Your task to perform on an android device: turn off location history Image 0: 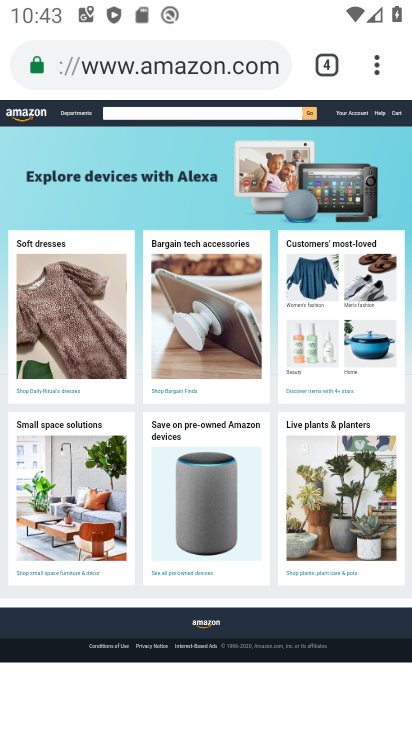
Step 0: press home button
Your task to perform on an android device: turn off location history Image 1: 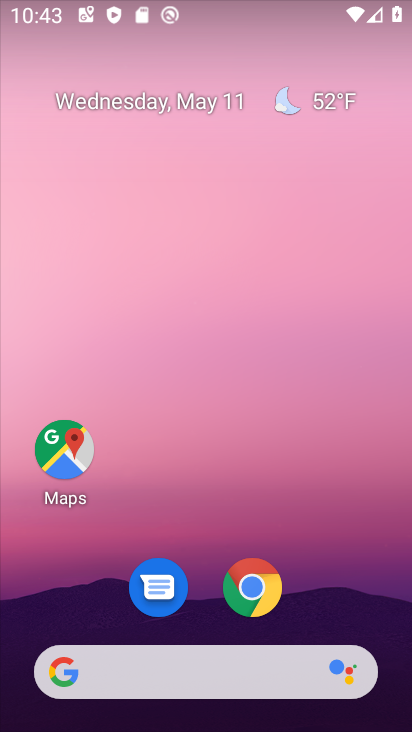
Step 1: drag from (286, 663) to (260, 315)
Your task to perform on an android device: turn off location history Image 2: 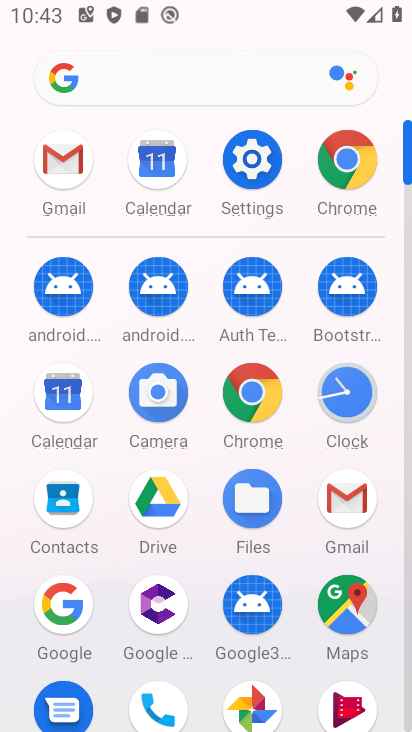
Step 2: click (271, 155)
Your task to perform on an android device: turn off location history Image 3: 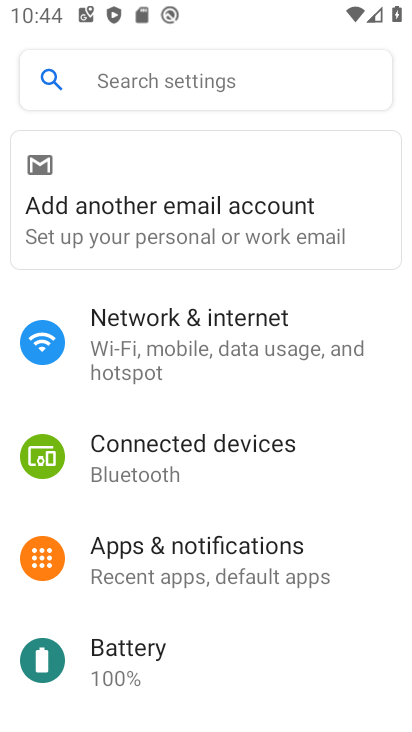
Step 3: click (192, 83)
Your task to perform on an android device: turn off location history Image 4: 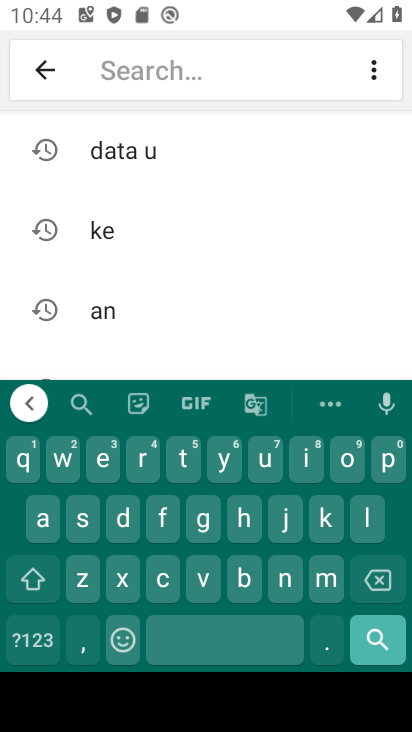
Step 4: click (358, 529)
Your task to perform on an android device: turn off location history Image 5: 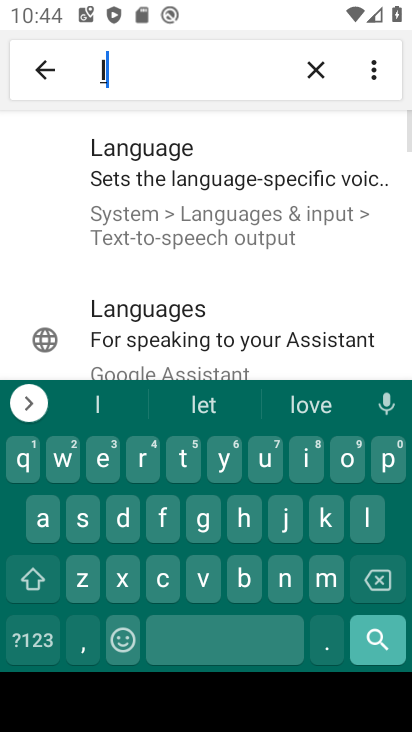
Step 5: click (344, 467)
Your task to perform on an android device: turn off location history Image 6: 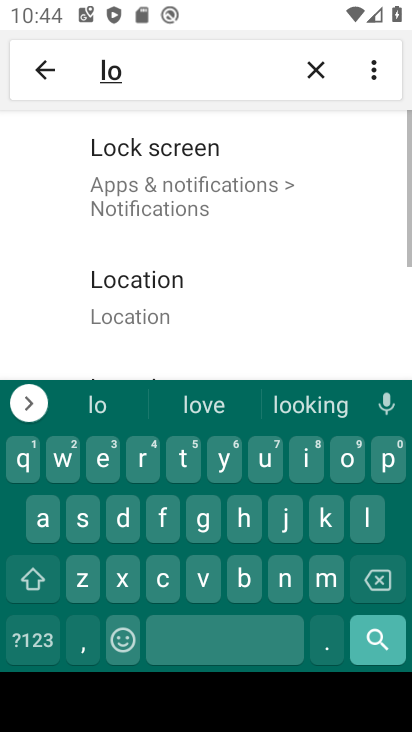
Step 6: click (175, 295)
Your task to perform on an android device: turn off location history Image 7: 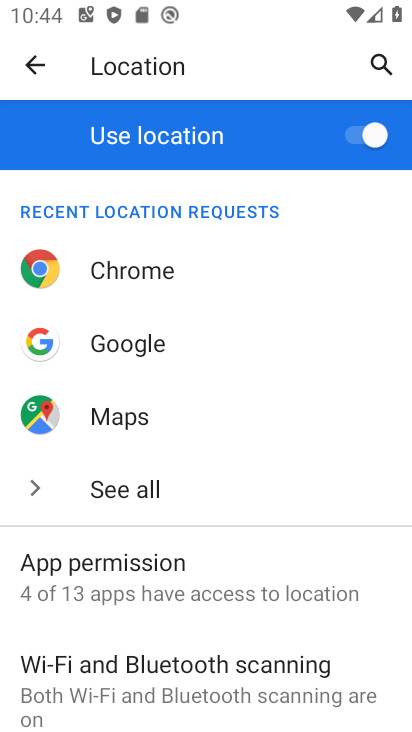
Step 7: drag from (163, 642) to (165, 434)
Your task to perform on an android device: turn off location history Image 8: 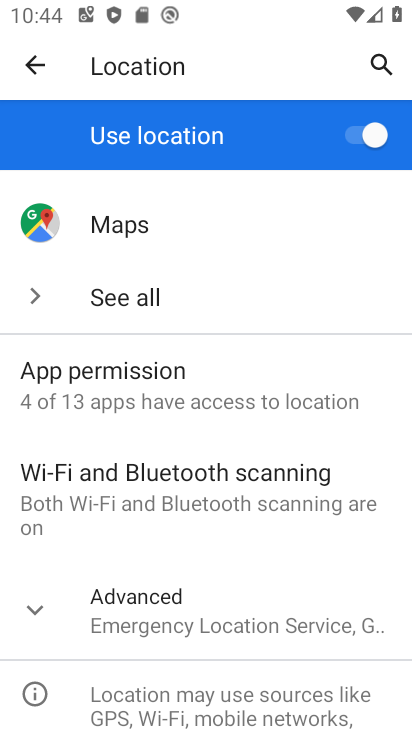
Step 8: click (112, 623)
Your task to perform on an android device: turn off location history Image 9: 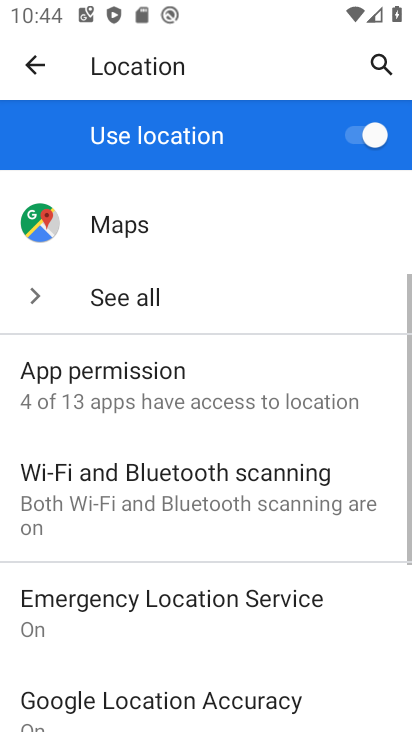
Step 9: drag from (146, 628) to (256, 374)
Your task to perform on an android device: turn off location history Image 10: 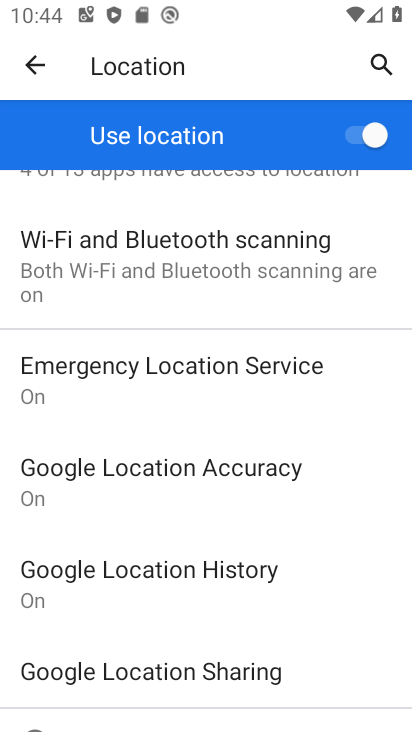
Step 10: click (164, 559)
Your task to perform on an android device: turn off location history Image 11: 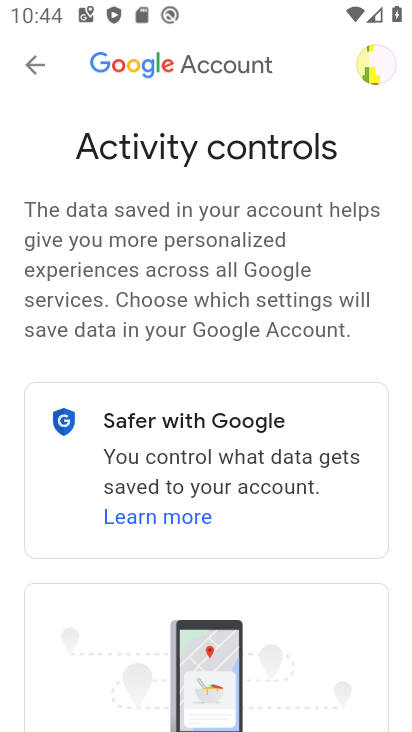
Step 11: task complete